Your task to perform on an android device: Open Google Image 0: 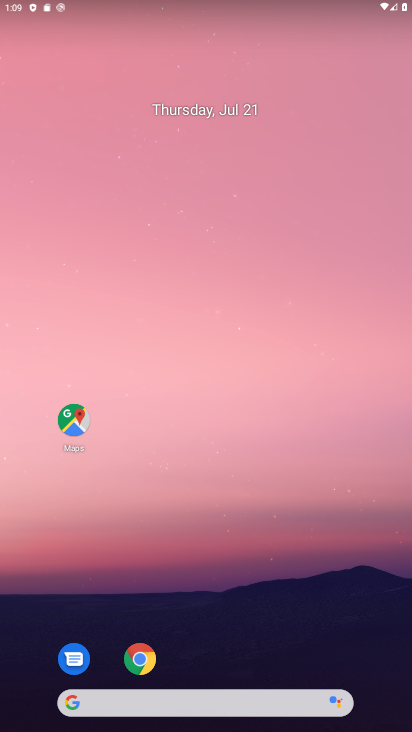
Step 0: drag from (268, 639) to (272, 95)
Your task to perform on an android device: Open Google Image 1: 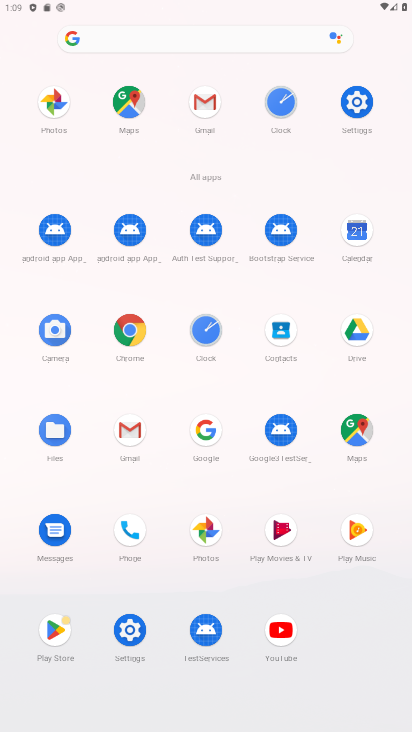
Step 1: click (206, 430)
Your task to perform on an android device: Open Google Image 2: 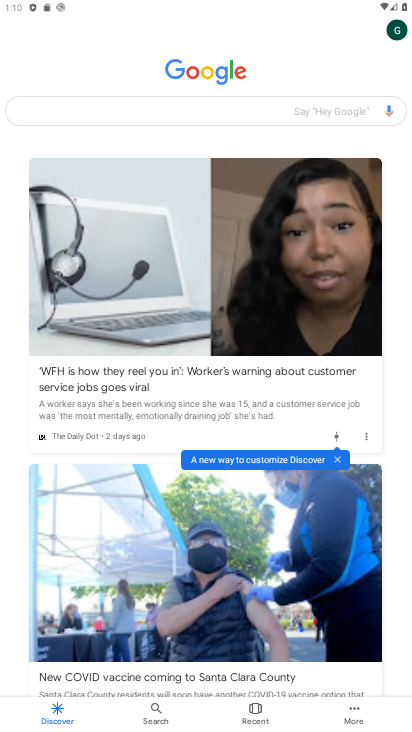
Step 2: task complete